Your task to perform on an android device: Open Wikipedia Image 0: 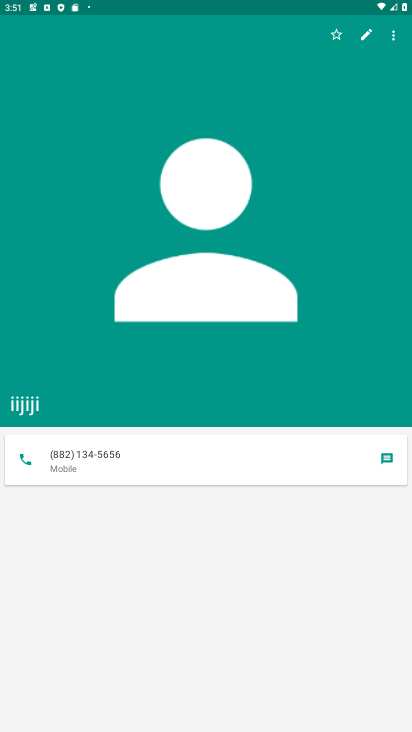
Step 0: press home button
Your task to perform on an android device: Open Wikipedia Image 1: 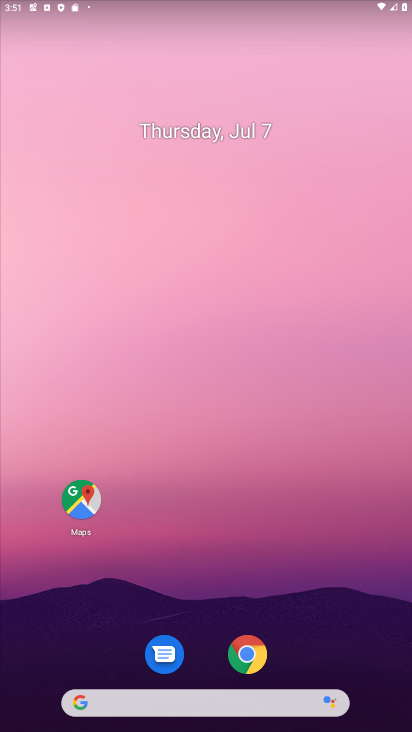
Step 1: click (252, 655)
Your task to perform on an android device: Open Wikipedia Image 2: 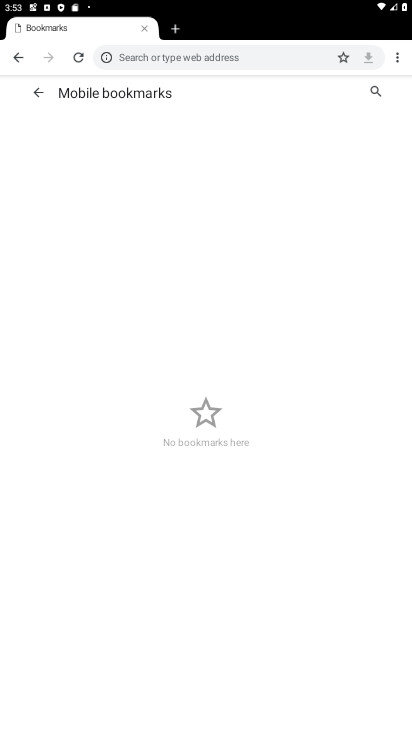
Step 2: click (181, 31)
Your task to perform on an android device: Open Wikipedia Image 3: 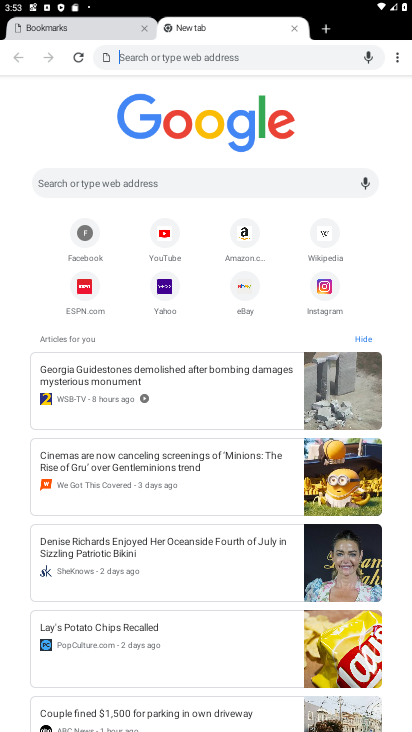
Step 3: click (331, 234)
Your task to perform on an android device: Open Wikipedia Image 4: 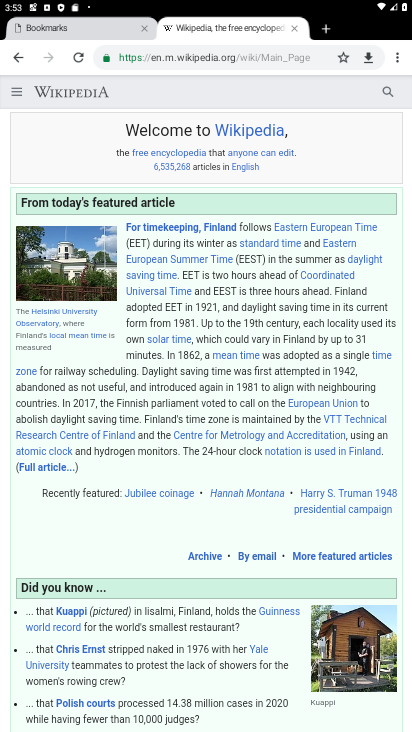
Step 4: task complete